Your task to perform on an android device: see tabs open on other devices in the chrome app Image 0: 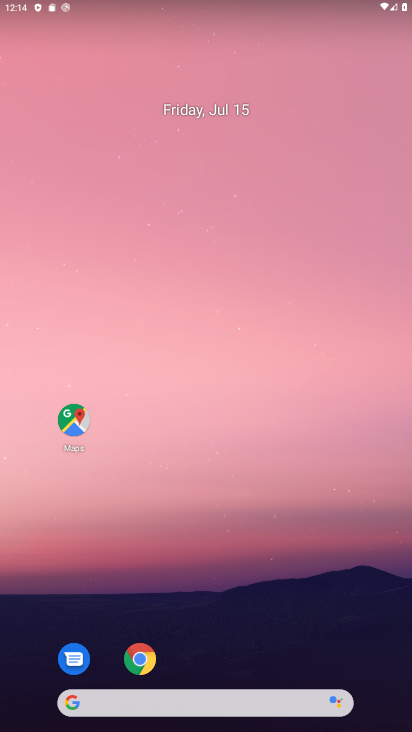
Step 0: click (146, 661)
Your task to perform on an android device: see tabs open on other devices in the chrome app Image 1: 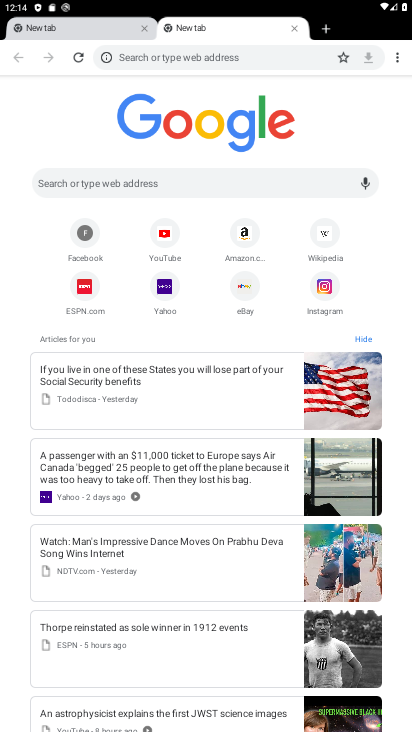
Step 1: click (392, 58)
Your task to perform on an android device: see tabs open on other devices in the chrome app Image 2: 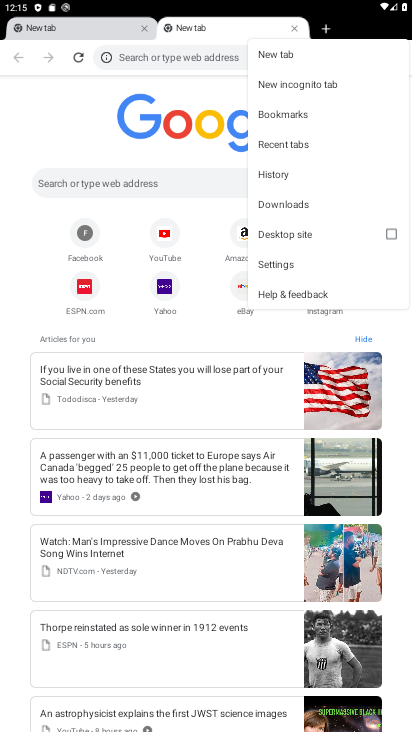
Step 2: click (301, 145)
Your task to perform on an android device: see tabs open on other devices in the chrome app Image 3: 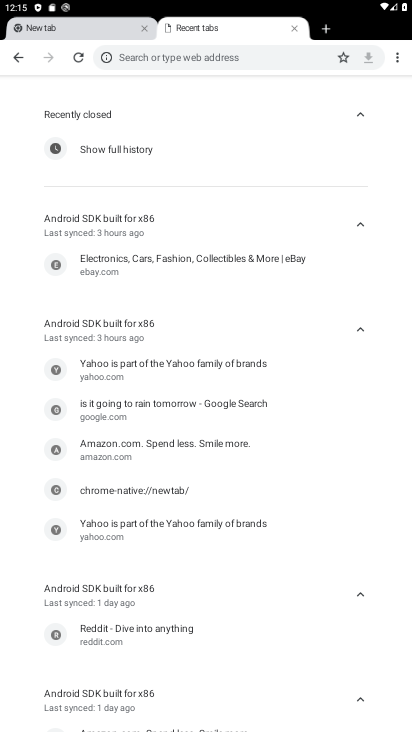
Step 3: task complete